Your task to perform on an android device: Check the news Image 0: 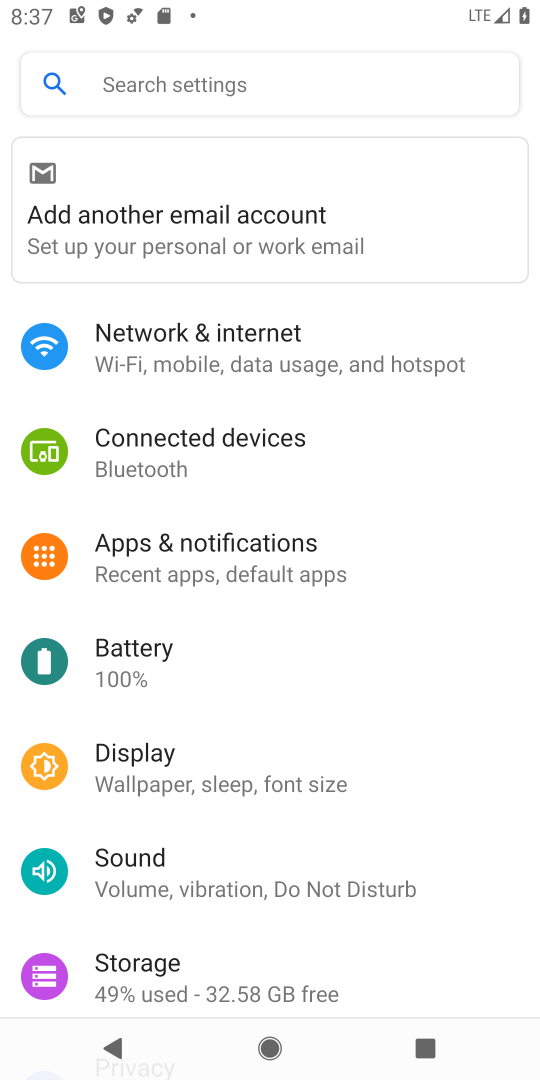
Step 0: press home button
Your task to perform on an android device: Check the news Image 1: 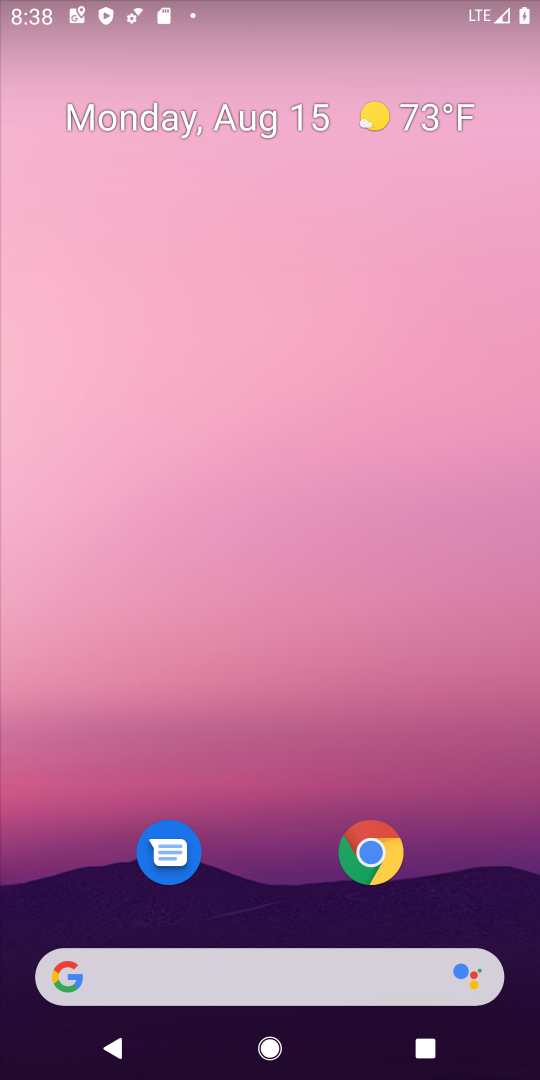
Step 1: click (368, 858)
Your task to perform on an android device: Check the news Image 2: 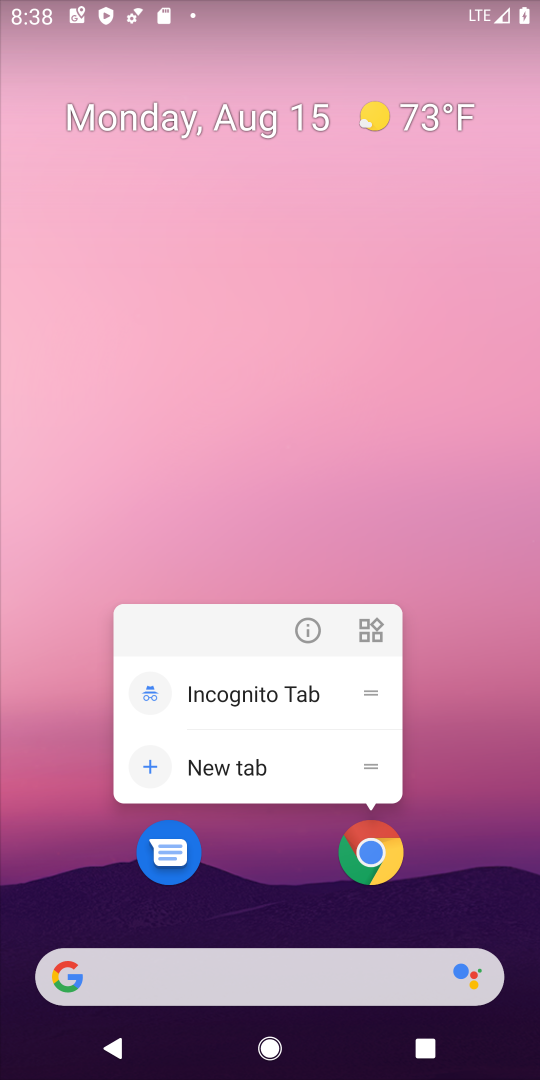
Step 2: click (374, 856)
Your task to perform on an android device: Check the news Image 3: 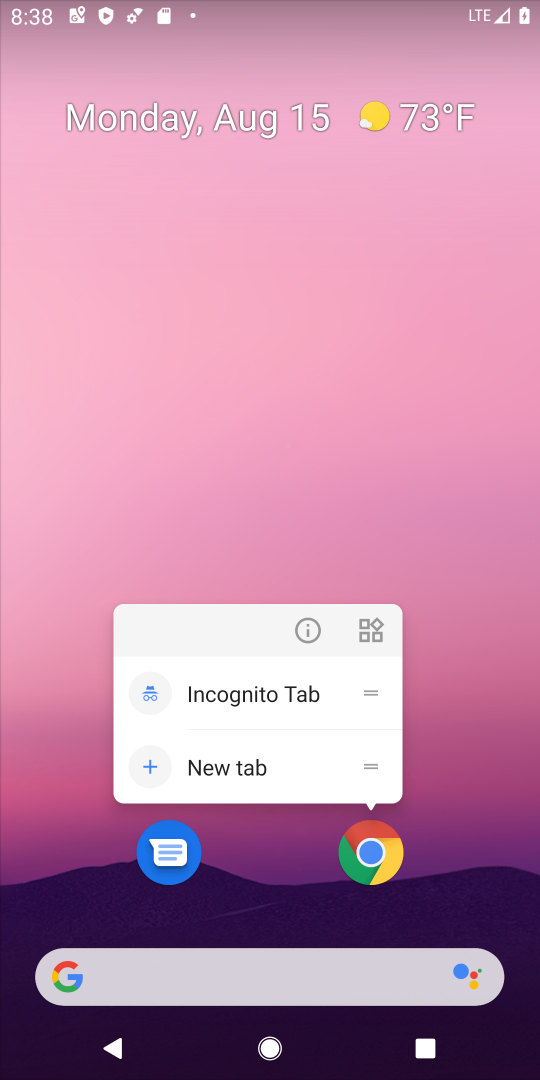
Step 3: click (374, 856)
Your task to perform on an android device: Check the news Image 4: 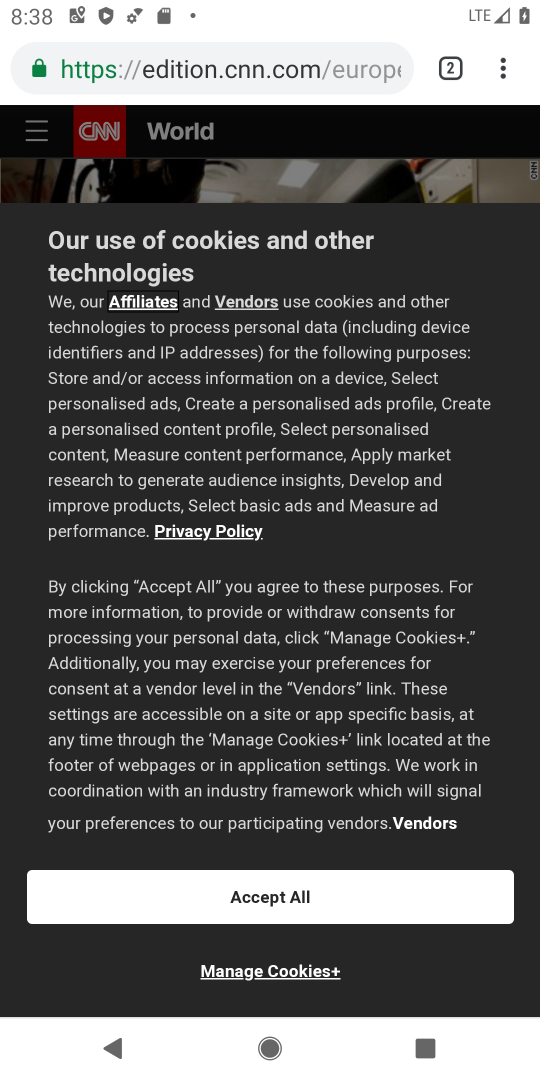
Step 4: click (391, 79)
Your task to perform on an android device: Check the news Image 5: 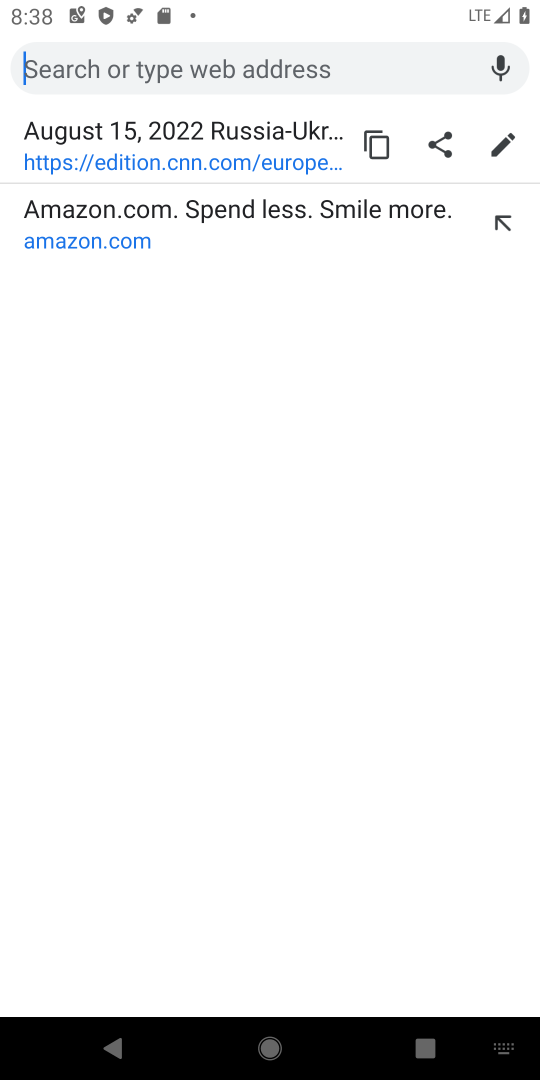
Step 5: type "news"
Your task to perform on an android device: Check the news Image 6: 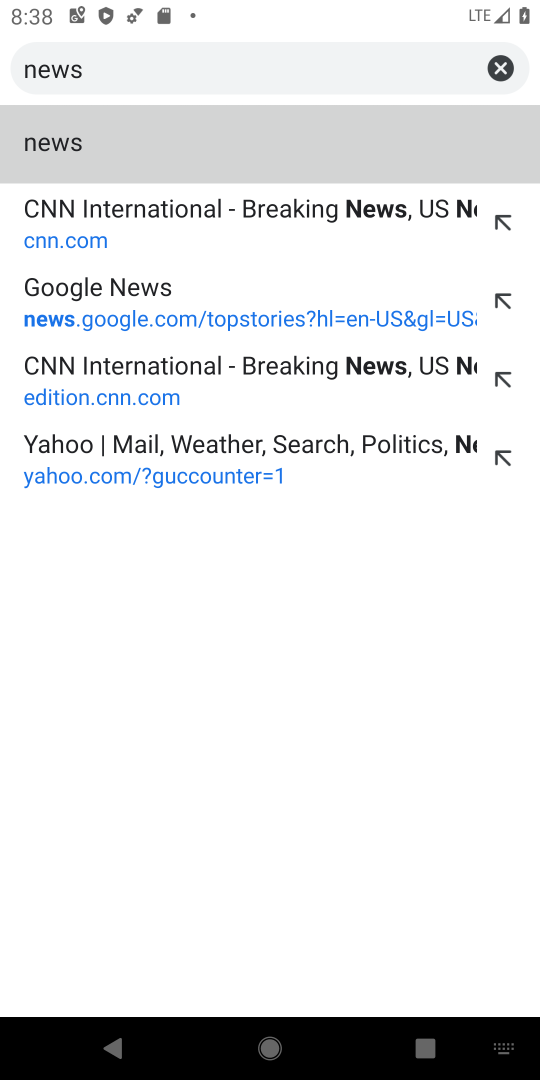
Step 6: click (375, 163)
Your task to perform on an android device: Check the news Image 7: 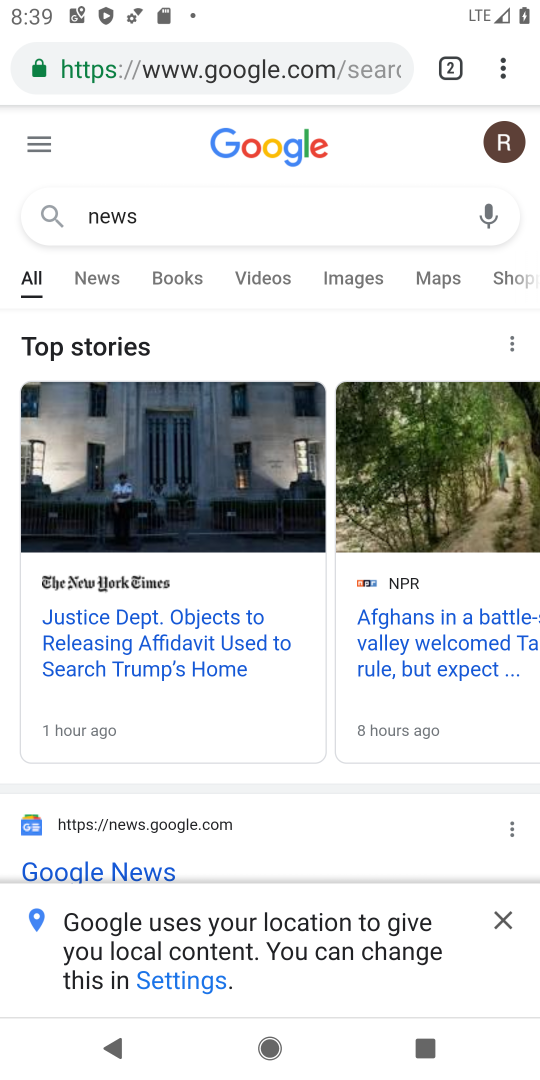
Step 7: click (185, 623)
Your task to perform on an android device: Check the news Image 8: 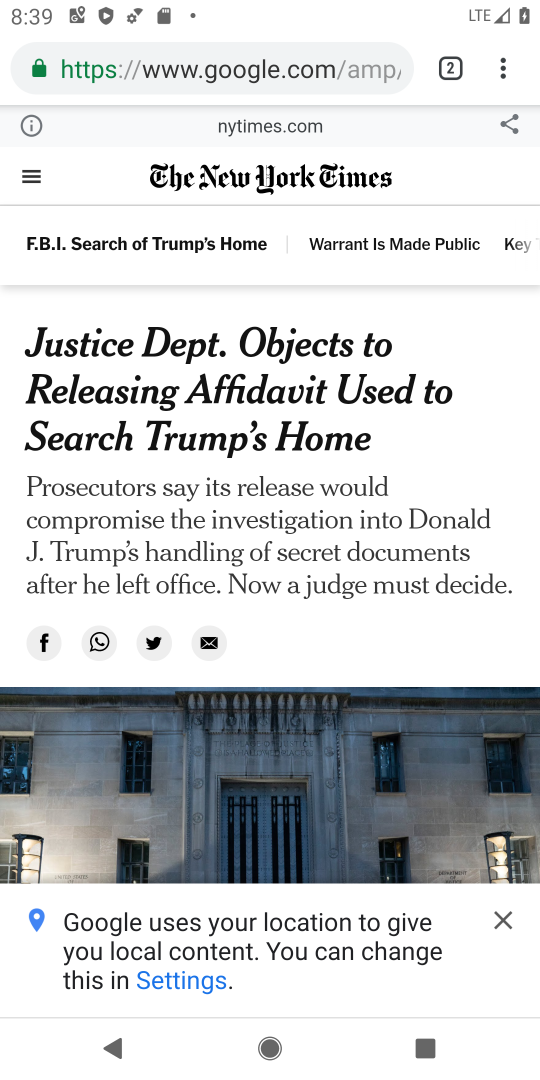
Step 8: task complete